Your task to perform on an android device: turn on javascript in the chrome app Image 0: 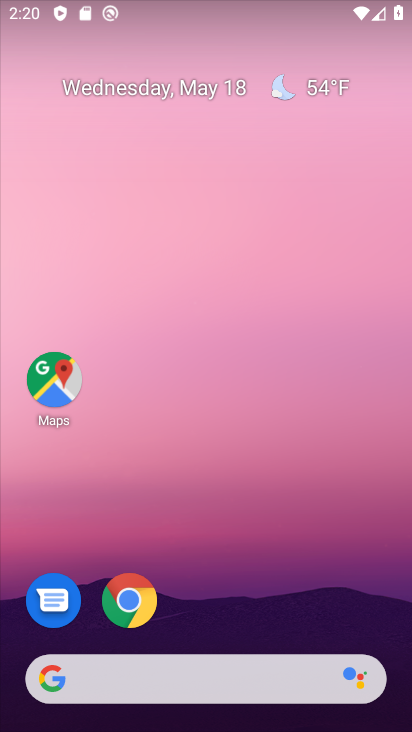
Step 0: press home button
Your task to perform on an android device: turn on javascript in the chrome app Image 1: 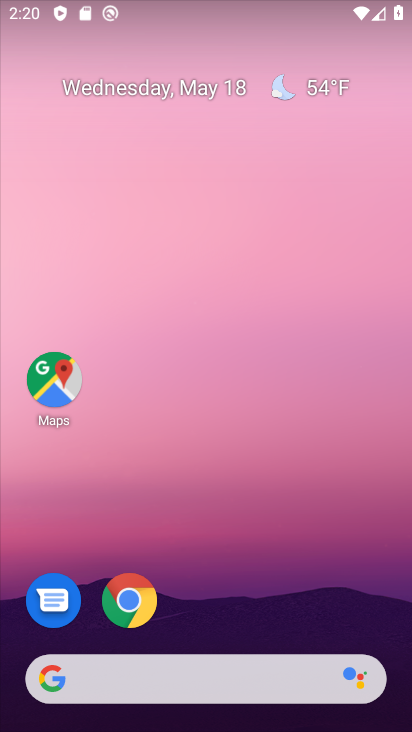
Step 1: click (138, 620)
Your task to perform on an android device: turn on javascript in the chrome app Image 2: 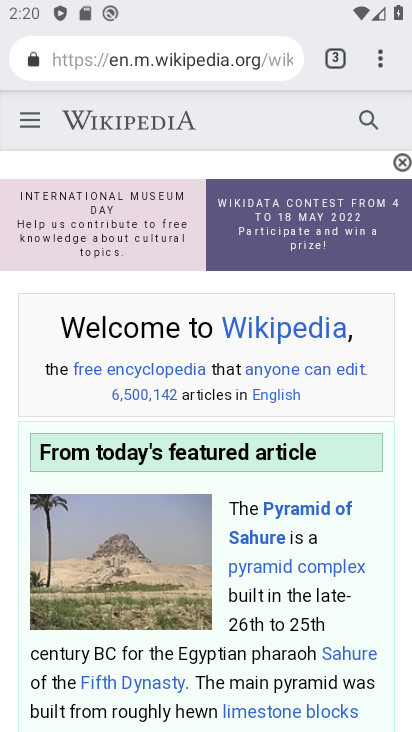
Step 2: drag from (381, 66) to (255, 632)
Your task to perform on an android device: turn on javascript in the chrome app Image 3: 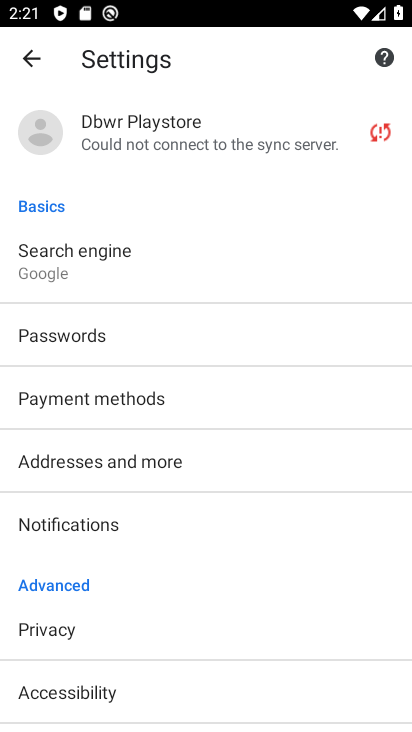
Step 3: drag from (200, 678) to (341, 254)
Your task to perform on an android device: turn on javascript in the chrome app Image 4: 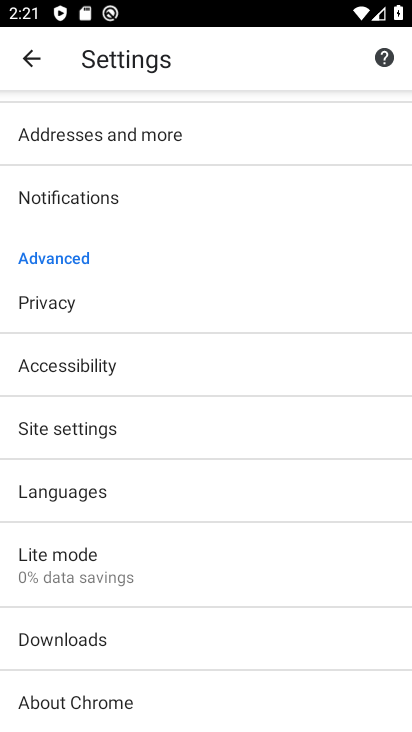
Step 4: click (86, 424)
Your task to perform on an android device: turn on javascript in the chrome app Image 5: 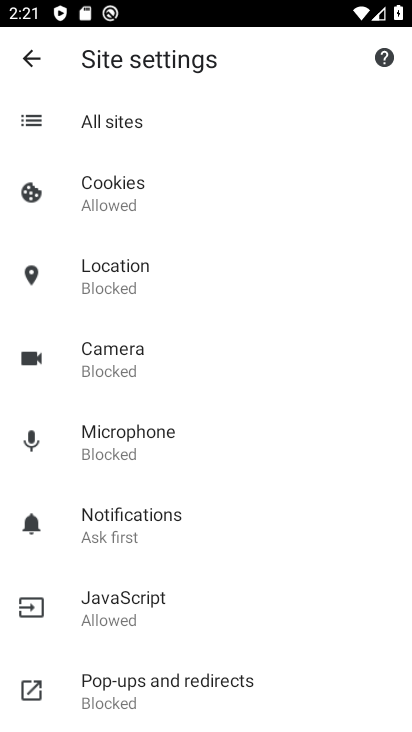
Step 5: click (145, 594)
Your task to perform on an android device: turn on javascript in the chrome app Image 6: 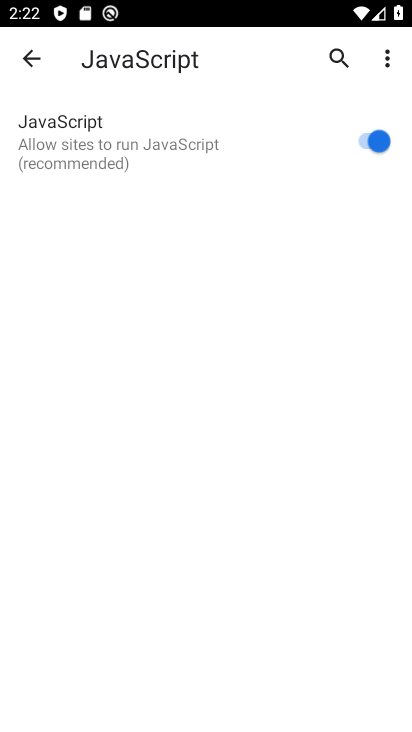
Step 6: task complete